Your task to perform on an android device: clear history in the chrome app Image 0: 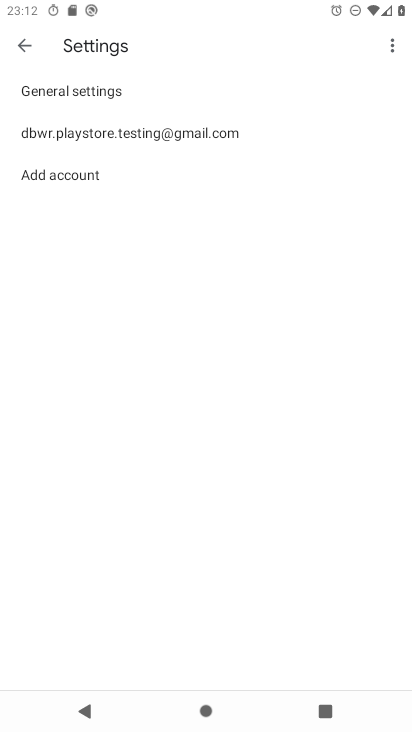
Step 0: press home button
Your task to perform on an android device: clear history in the chrome app Image 1: 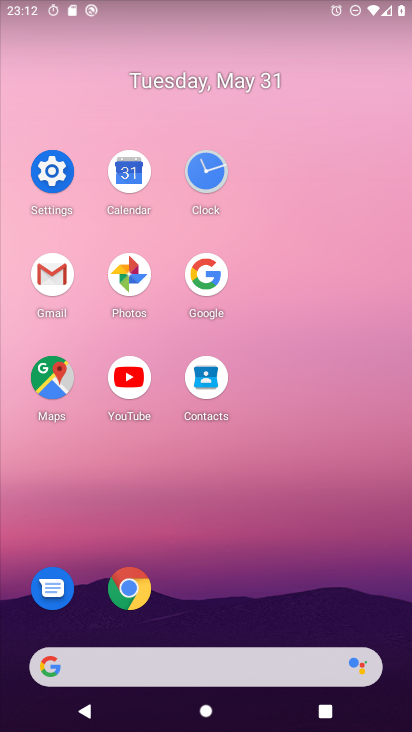
Step 1: click (129, 591)
Your task to perform on an android device: clear history in the chrome app Image 2: 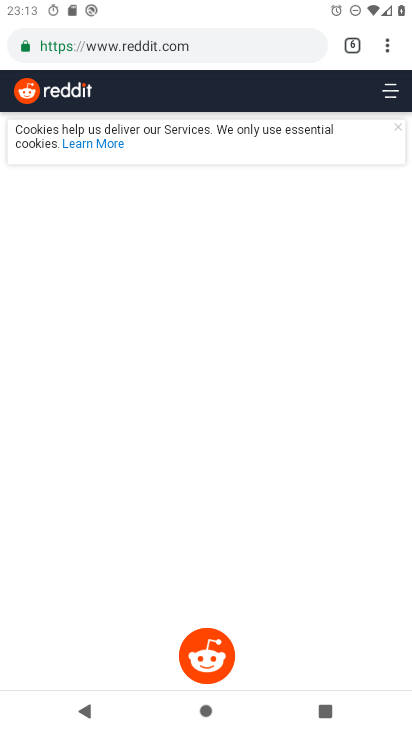
Step 2: click (394, 49)
Your task to perform on an android device: clear history in the chrome app Image 3: 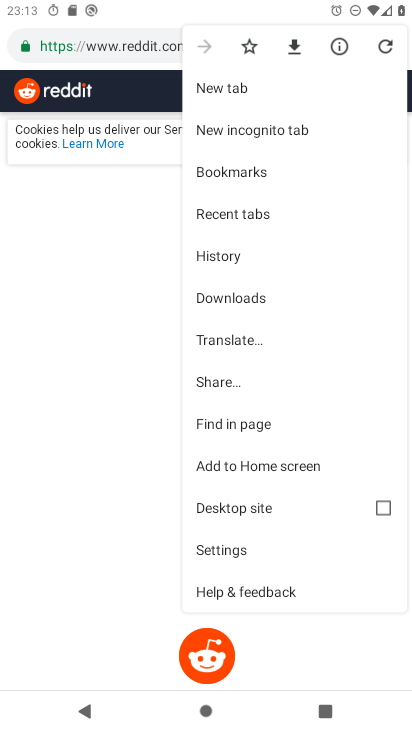
Step 3: click (276, 260)
Your task to perform on an android device: clear history in the chrome app Image 4: 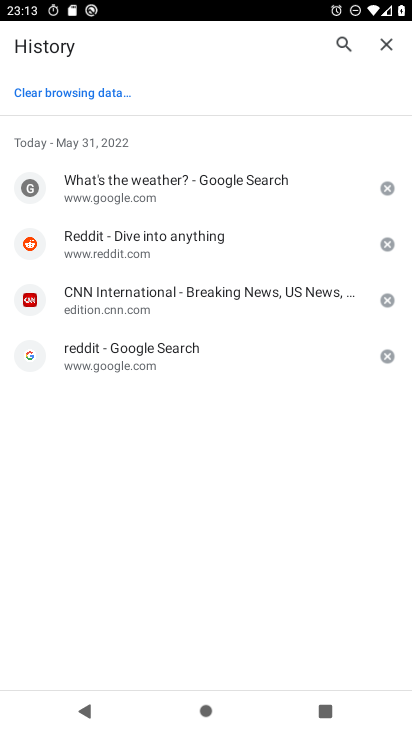
Step 4: click (86, 107)
Your task to perform on an android device: clear history in the chrome app Image 5: 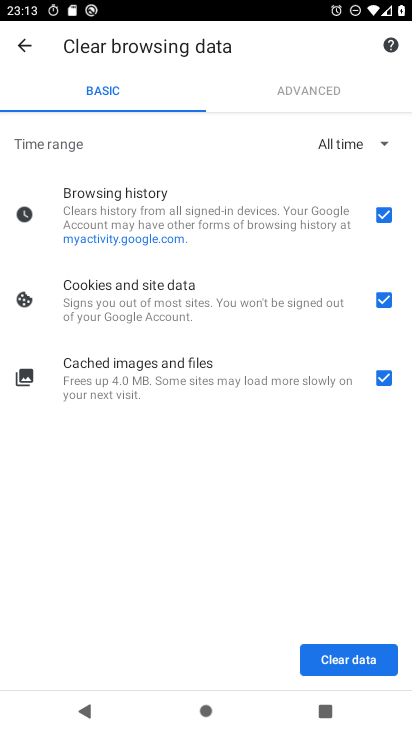
Step 5: click (357, 655)
Your task to perform on an android device: clear history in the chrome app Image 6: 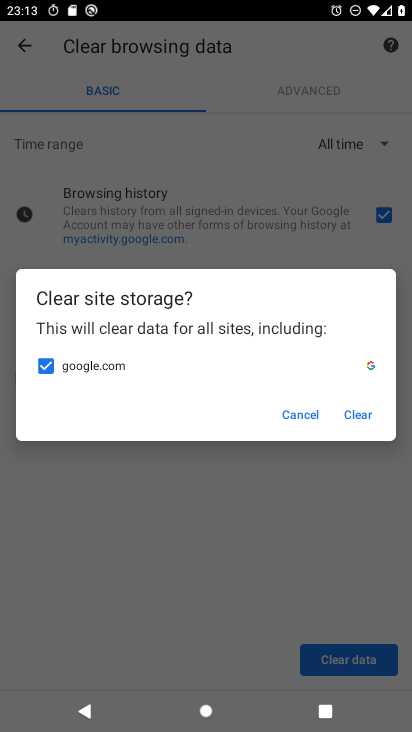
Step 6: click (375, 416)
Your task to perform on an android device: clear history in the chrome app Image 7: 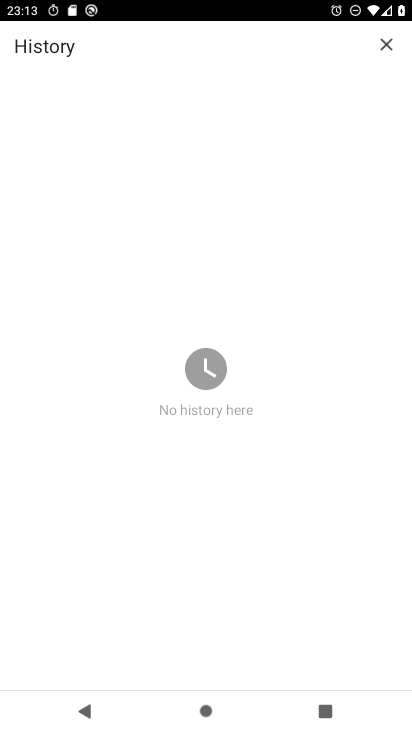
Step 7: task complete